Your task to perform on an android device: change keyboard looks Image 0: 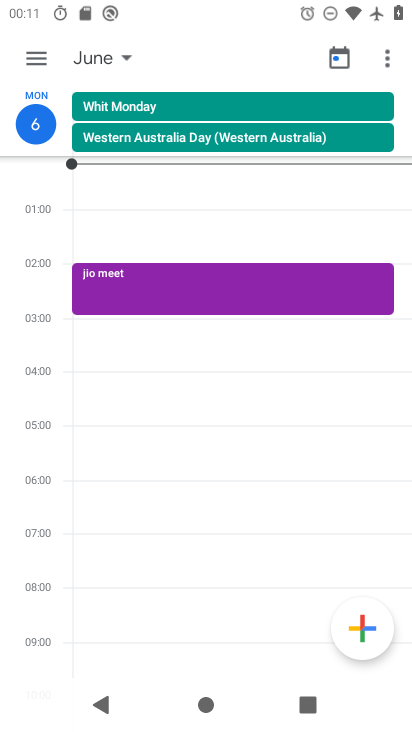
Step 0: drag from (213, 609) to (296, 69)
Your task to perform on an android device: change keyboard looks Image 1: 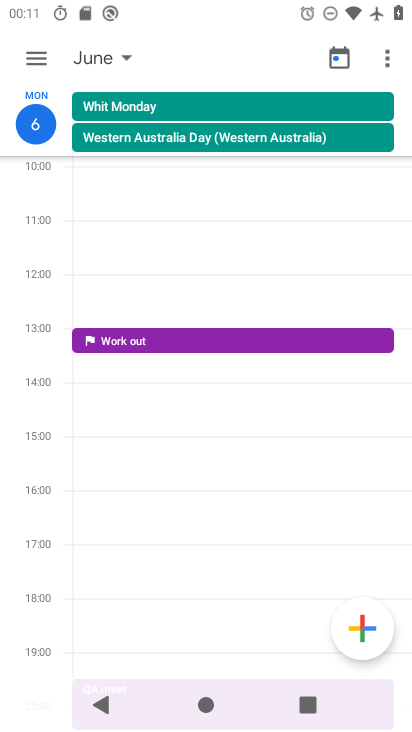
Step 1: drag from (226, 409) to (263, 70)
Your task to perform on an android device: change keyboard looks Image 2: 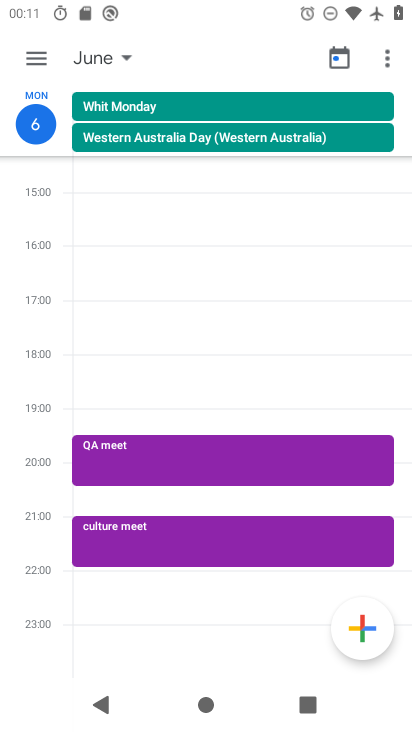
Step 2: drag from (239, 318) to (288, 592)
Your task to perform on an android device: change keyboard looks Image 3: 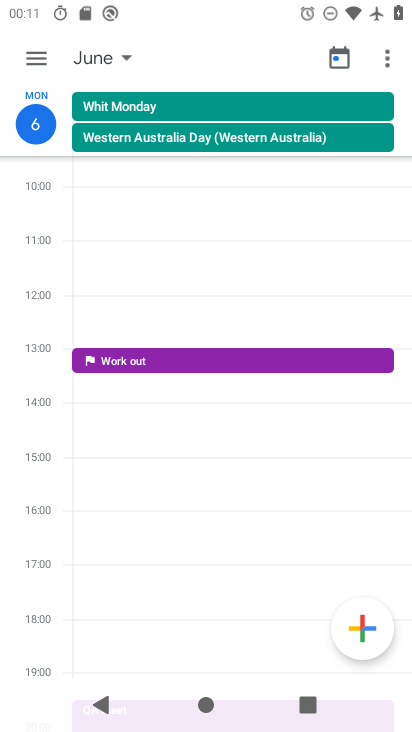
Step 3: drag from (272, 384) to (272, 145)
Your task to perform on an android device: change keyboard looks Image 4: 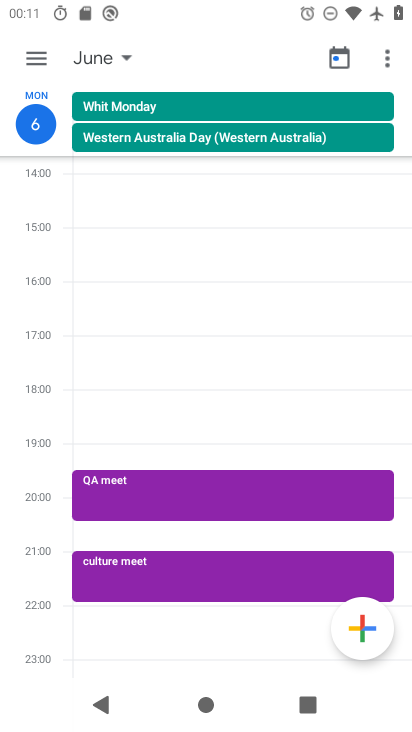
Step 4: press home button
Your task to perform on an android device: change keyboard looks Image 5: 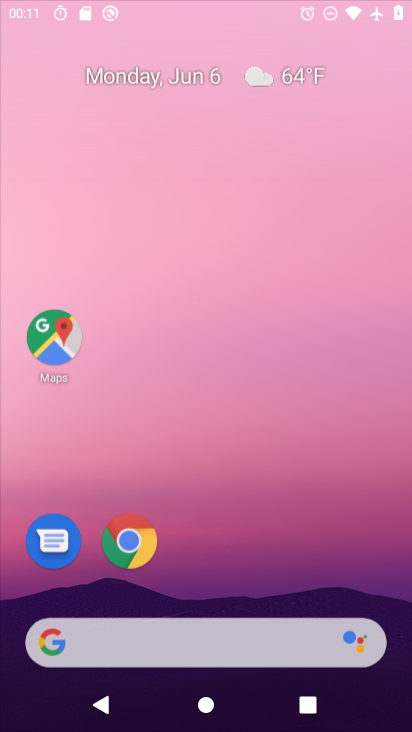
Step 5: drag from (322, 380) to (315, 79)
Your task to perform on an android device: change keyboard looks Image 6: 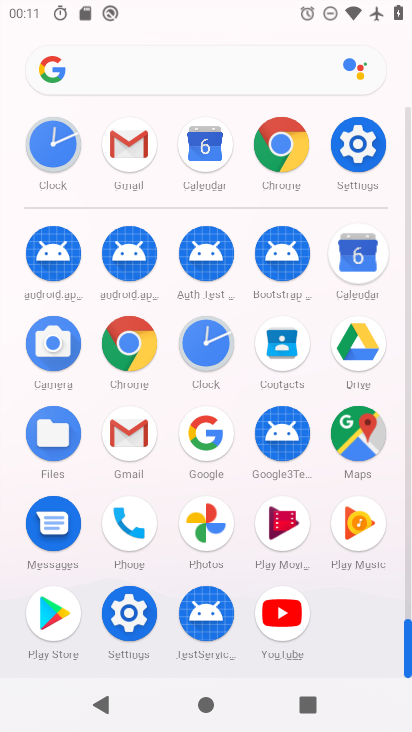
Step 6: click (364, 144)
Your task to perform on an android device: change keyboard looks Image 7: 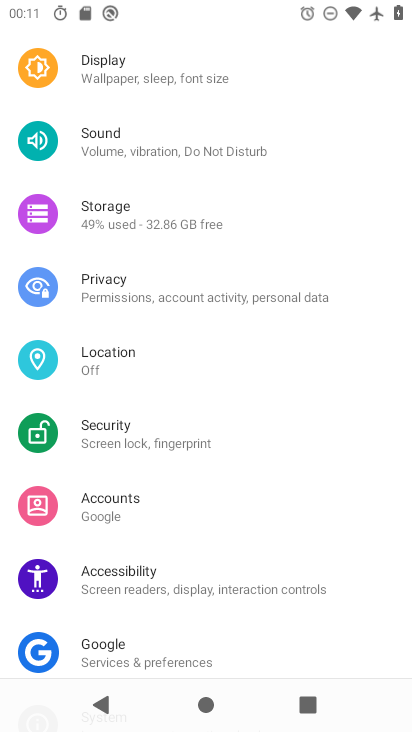
Step 7: drag from (204, 324) to (212, 24)
Your task to perform on an android device: change keyboard looks Image 8: 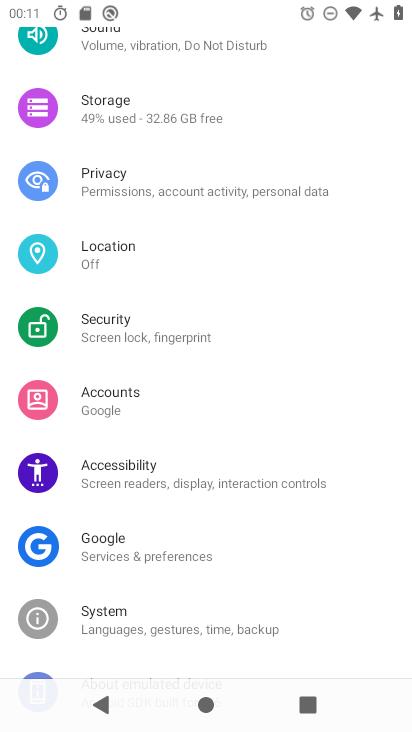
Step 8: drag from (170, 624) to (267, 228)
Your task to perform on an android device: change keyboard looks Image 9: 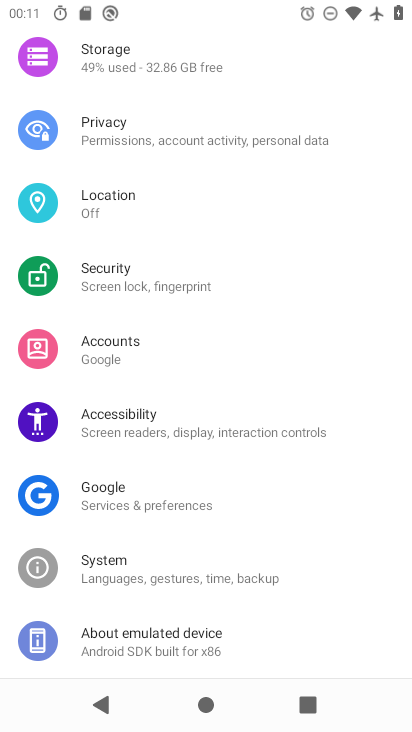
Step 9: click (186, 585)
Your task to perform on an android device: change keyboard looks Image 10: 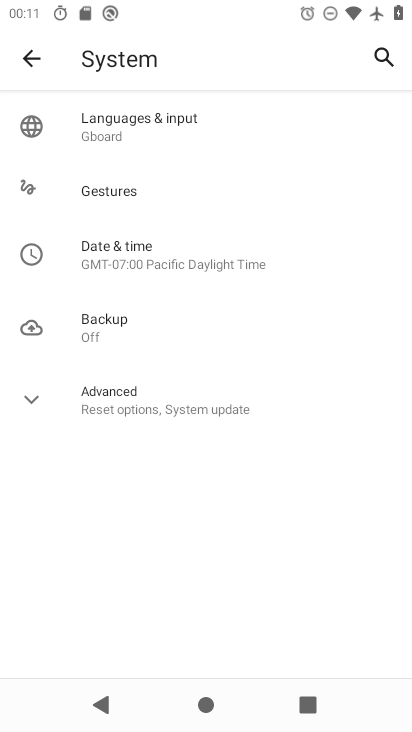
Step 10: click (161, 133)
Your task to perform on an android device: change keyboard looks Image 11: 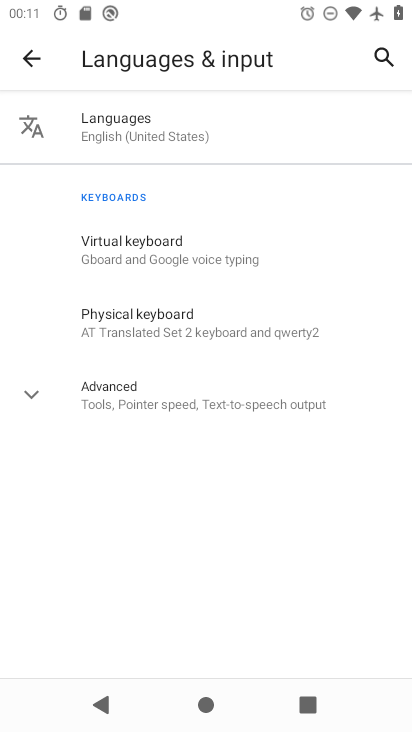
Step 11: click (179, 252)
Your task to perform on an android device: change keyboard looks Image 12: 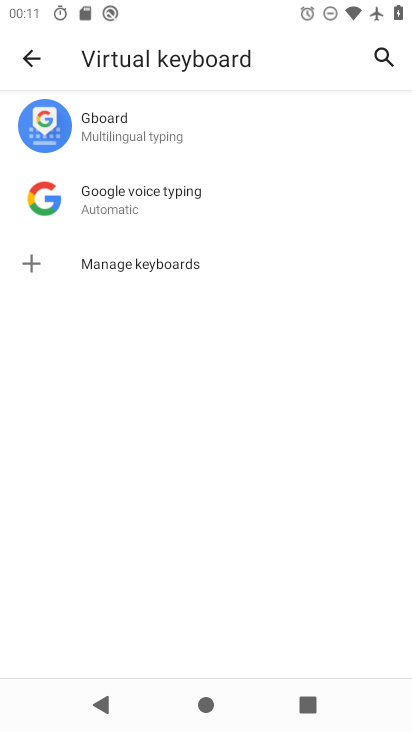
Step 12: click (207, 149)
Your task to perform on an android device: change keyboard looks Image 13: 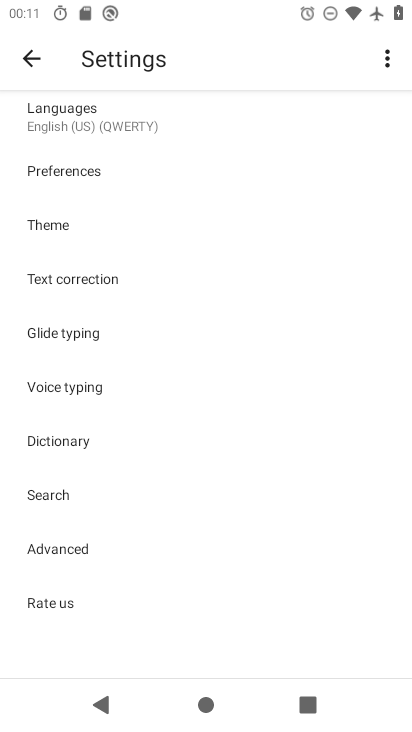
Step 13: click (158, 224)
Your task to perform on an android device: change keyboard looks Image 14: 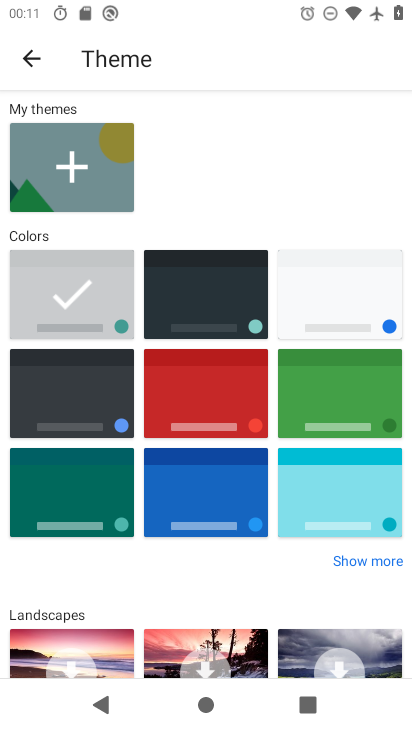
Step 14: click (210, 299)
Your task to perform on an android device: change keyboard looks Image 15: 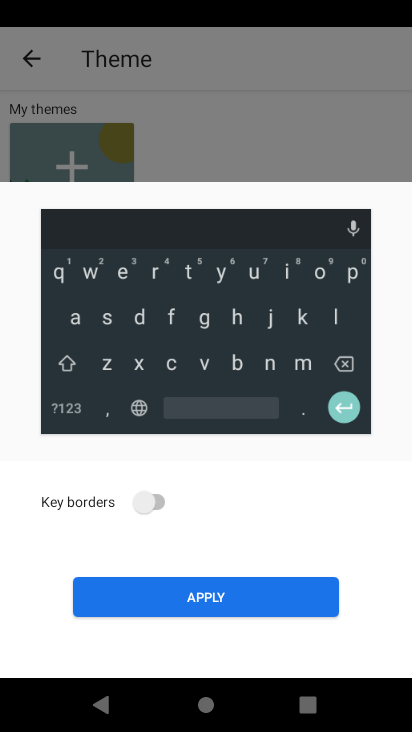
Step 15: click (255, 606)
Your task to perform on an android device: change keyboard looks Image 16: 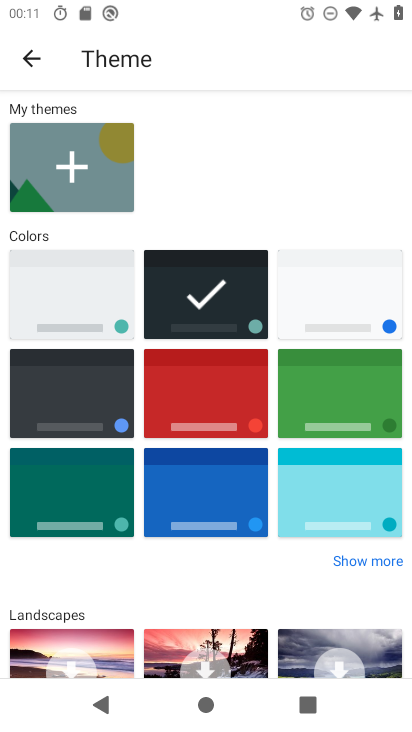
Step 16: task complete